Your task to perform on an android device: set default search engine in the chrome app Image 0: 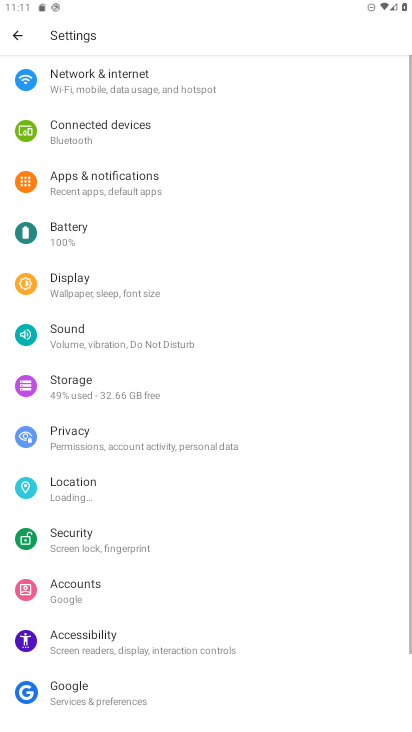
Step 0: press back button
Your task to perform on an android device: set default search engine in the chrome app Image 1: 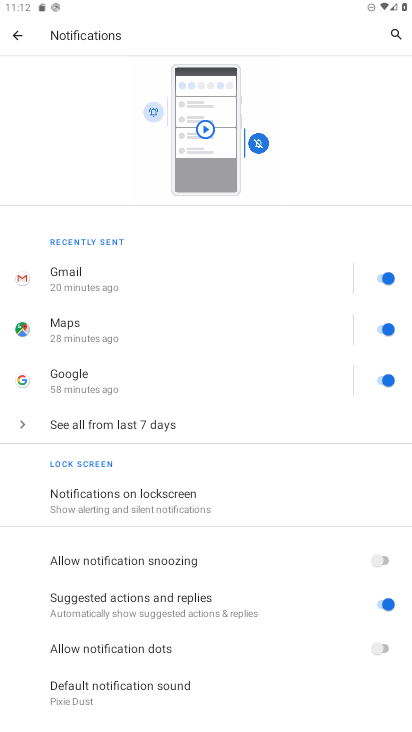
Step 1: press back button
Your task to perform on an android device: set default search engine in the chrome app Image 2: 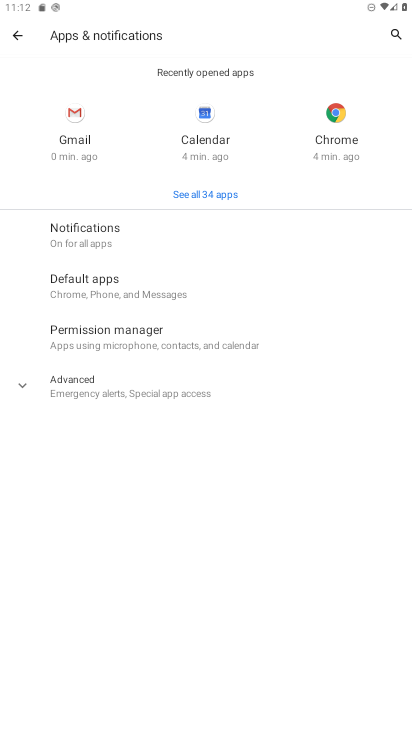
Step 2: press back button
Your task to perform on an android device: set default search engine in the chrome app Image 3: 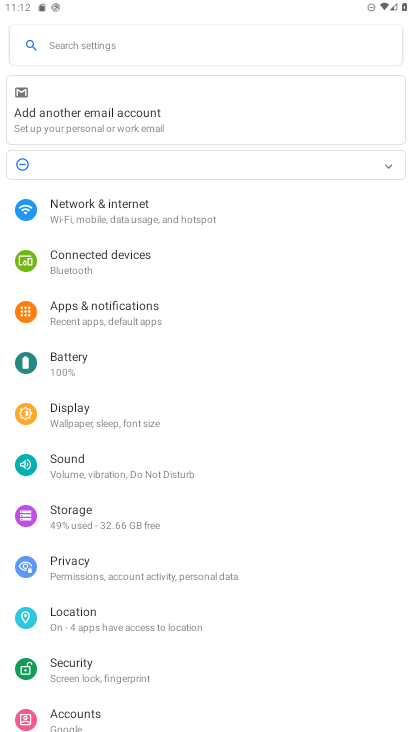
Step 3: press back button
Your task to perform on an android device: set default search engine in the chrome app Image 4: 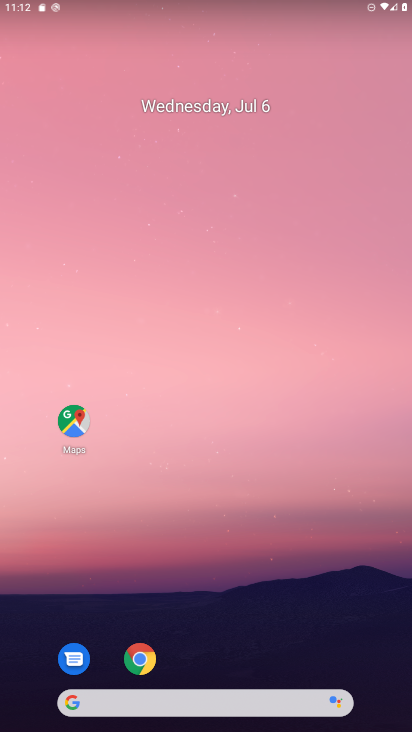
Step 4: click (144, 653)
Your task to perform on an android device: set default search engine in the chrome app Image 5: 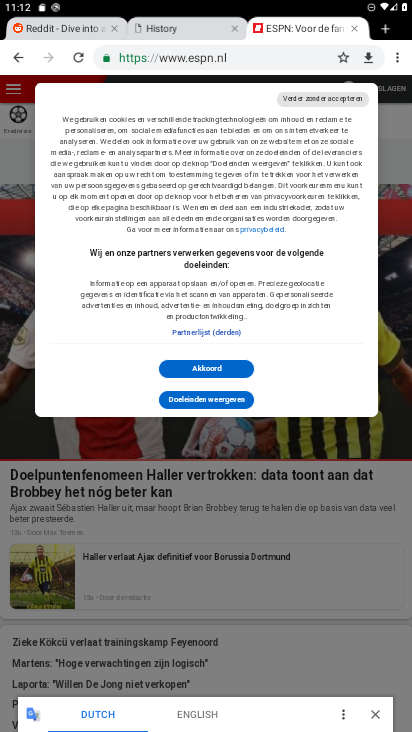
Step 5: click (401, 60)
Your task to perform on an android device: set default search engine in the chrome app Image 6: 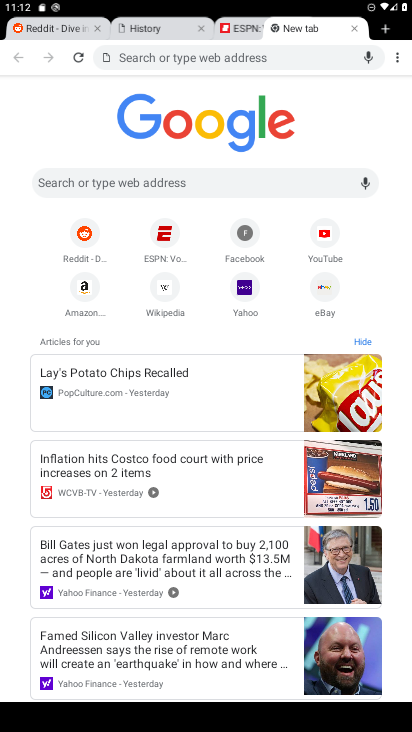
Step 6: drag from (397, 56) to (278, 261)
Your task to perform on an android device: set default search engine in the chrome app Image 7: 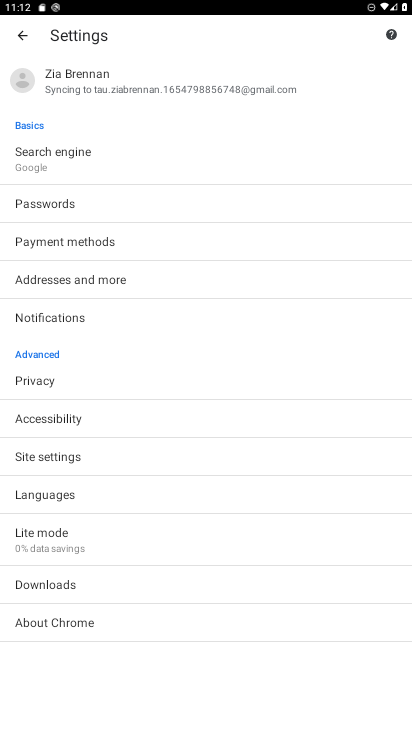
Step 7: click (80, 163)
Your task to perform on an android device: set default search engine in the chrome app Image 8: 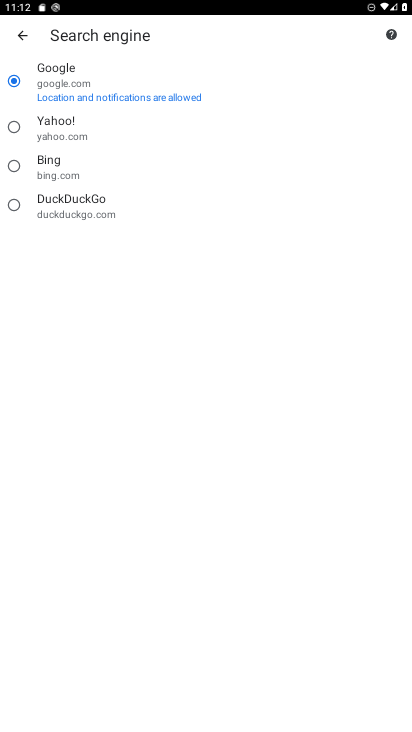
Step 8: click (17, 126)
Your task to perform on an android device: set default search engine in the chrome app Image 9: 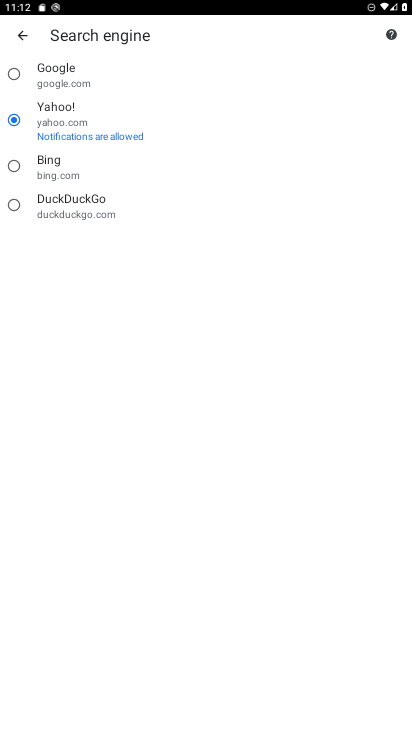
Step 9: task complete